Your task to perform on an android device: empty trash in google photos Image 0: 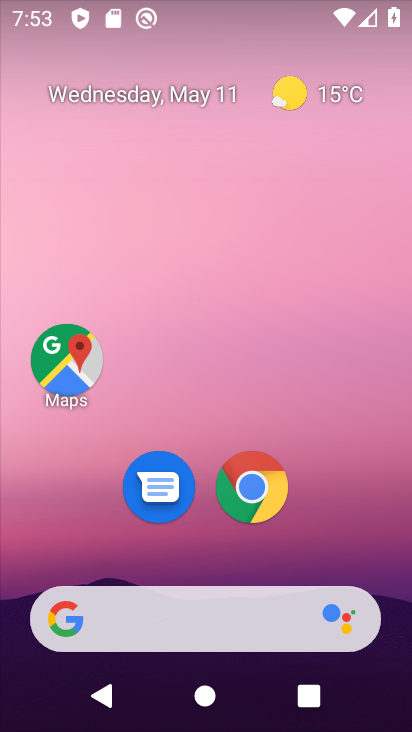
Step 0: press home button
Your task to perform on an android device: empty trash in google photos Image 1: 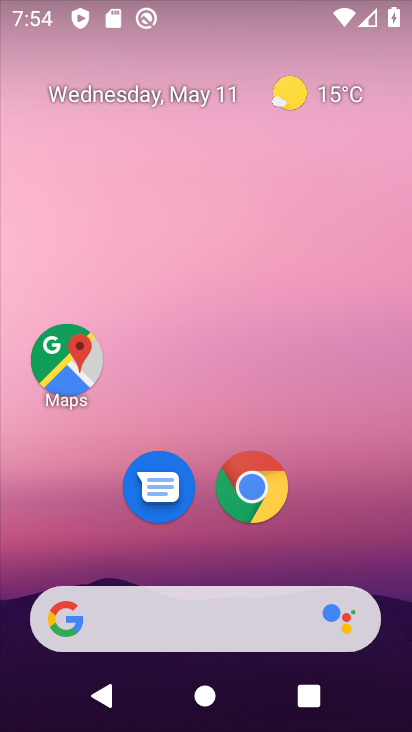
Step 1: drag from (255, 585) to (241, 195)
Your task to perform on an android device: empty trash in google photos Image 2: 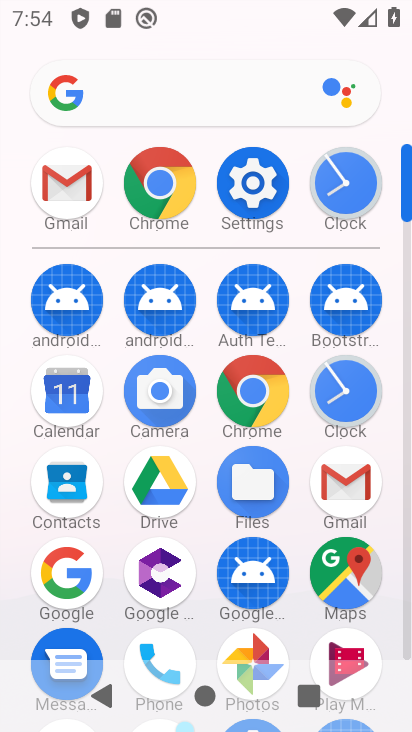
Step 2: drag from (195, 436) to (188, 286)
Your task to perform on an android device: empty trash in google photos Image 3: 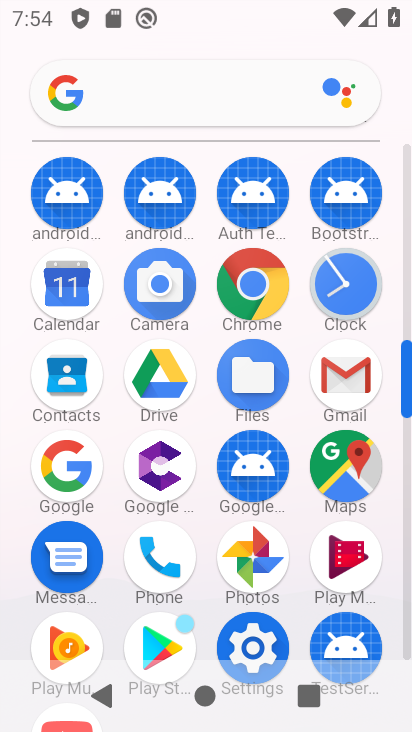
Step 3: click (264, 554)
Your task to perform on an android device: empty trash in google photos Image 4: 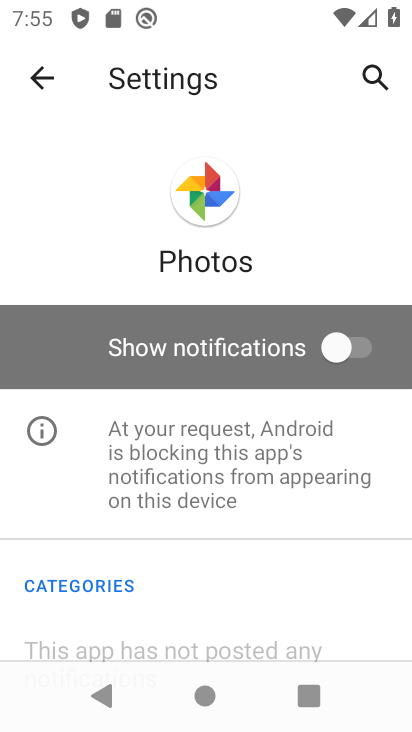
Step 4: click (27, 86)
Your task to perform on an android device: empty trash in google photos Image 5: 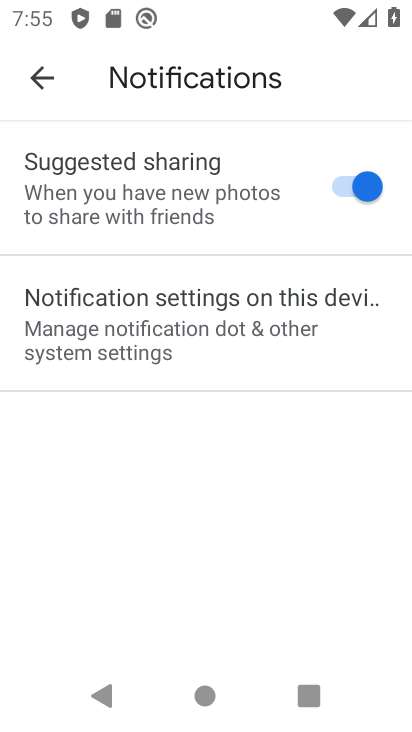
Step 5: click (27, 86)
Your task to perform on an android device: empty trash in google photos Image 6: 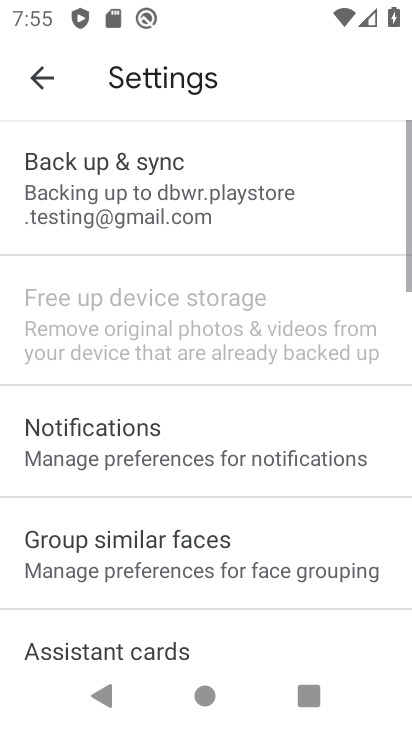
Step 6: click (54, 84)
Your task to perform on an android device: empty trash in google photos Image 7: 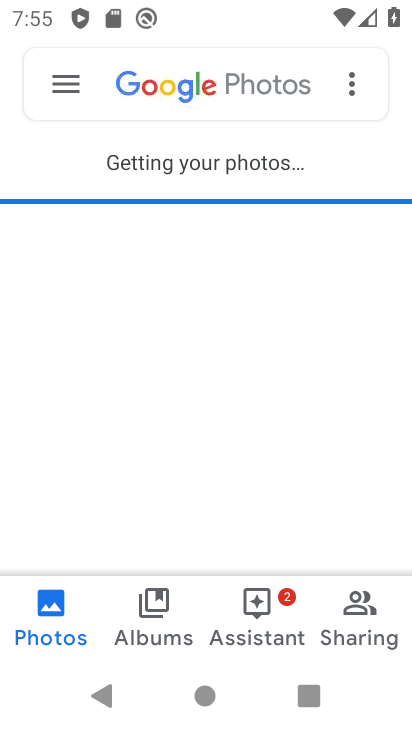
Step 7: click (57, 84)
Your task to perform on an android device: empty trash in google photos Image 8: 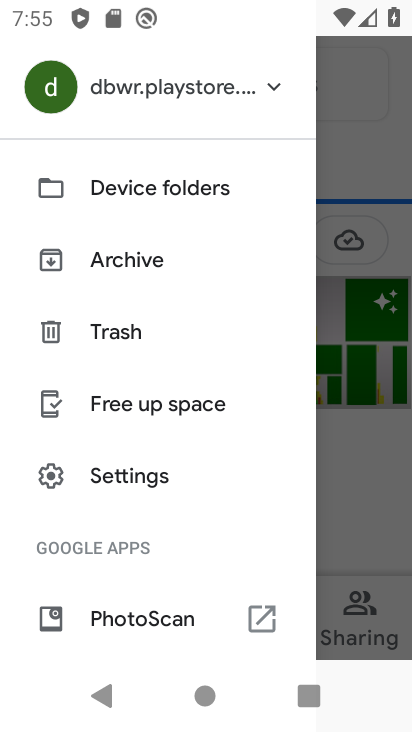
Step 8: click (148, 340)
Your task to perform on an android device: empty trash in google photos Image 9: 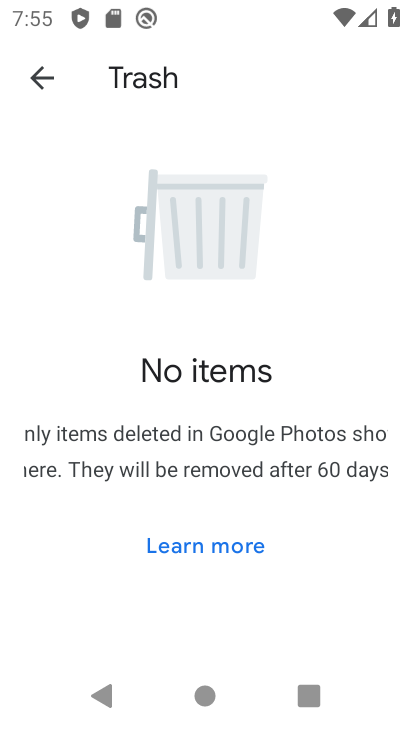
Step 9: task complete